Your task to perform on an android device: turn off priority inbox in the gmail app Image 0: 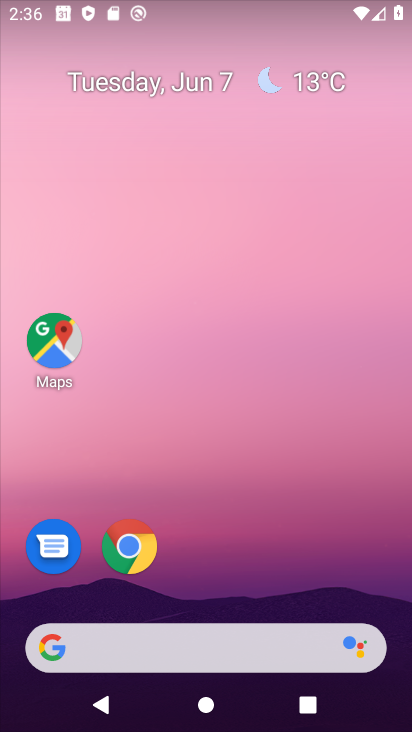
Step 0: drag from (230, 405) to (183, 24)
Your task to perform on an android device: turn off priority inbox in the gmail app Image 1: 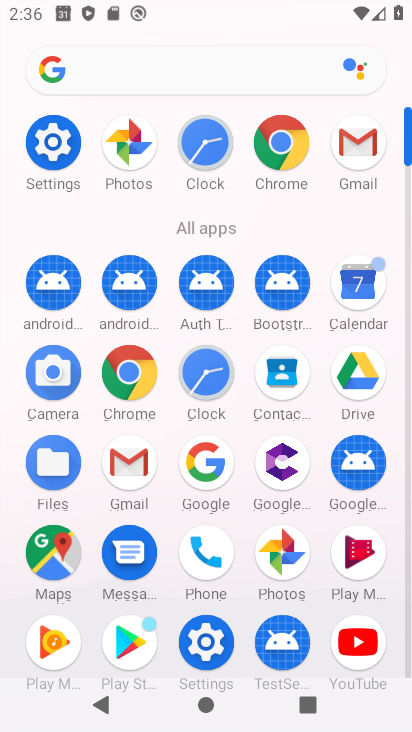
Step 1: click (348, 155)
Your task to perform on an android device: turn off priority inbox in the gmail app Image 2: 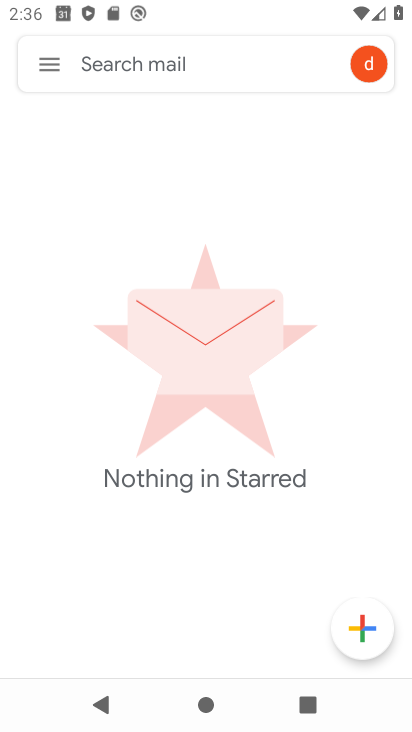
Step 2: click (57, 73)
Your task to perform on an android device: turn off priority inbox in the gmail app Image 3: 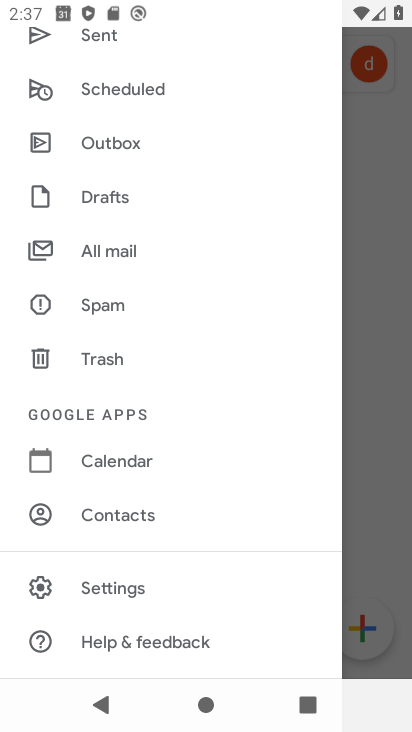
Step 3: click (107, 594)
Your task to perform on an android device: turn off priority inbox in the gmail app Image 4: 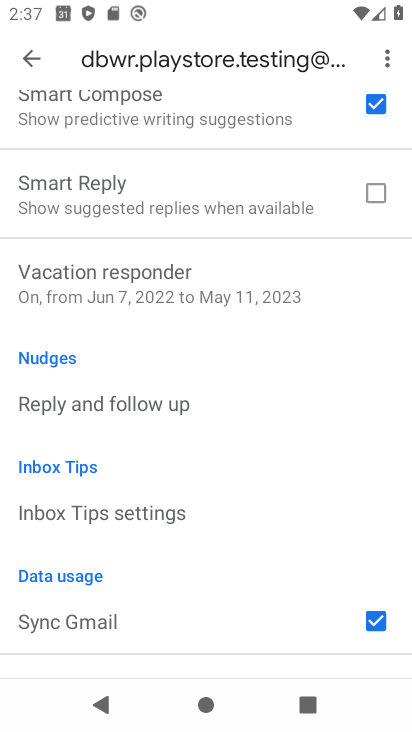
Step 4: drag from (171, 164) to (339, 730)
Your task to perform on an android device: turn off priority inbox in the gmail app Image 5: 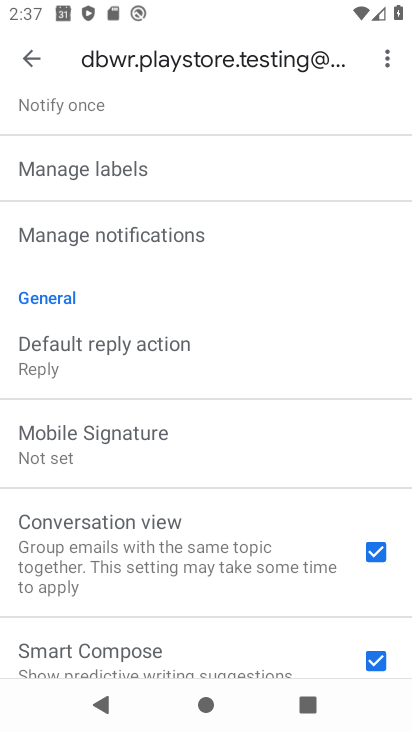
Step 5: drag from (144, 138) to (206, 467)
Your task to perform on an android device: turn off priority inbox in the gmail app Image 6: 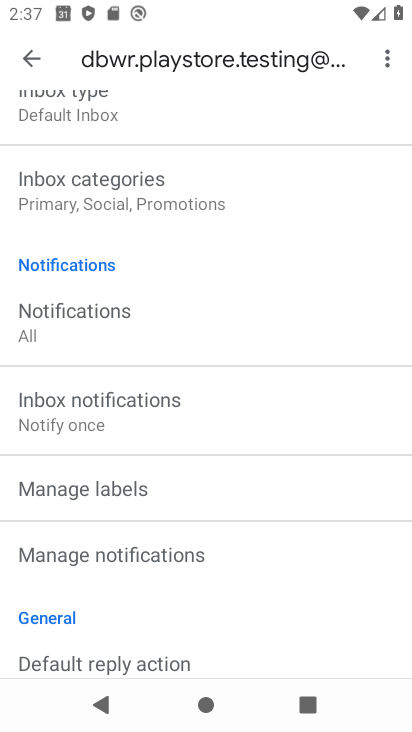
Step 6: drag from (119, 183) to (208, 568)
Your task to perform on an android device: turn off priority inbox in the gmail app Image 7: 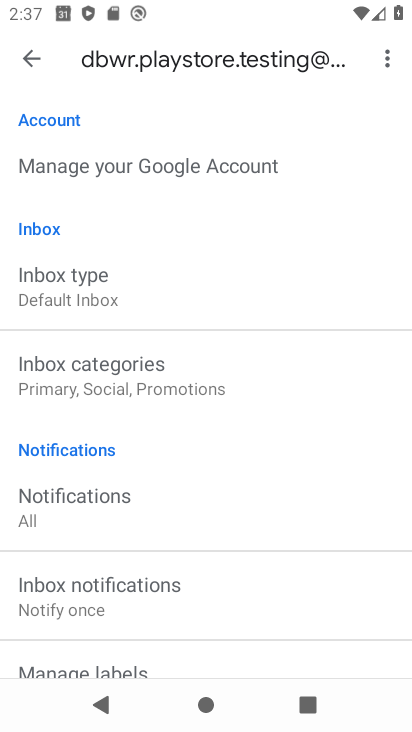
Step 7: click (88, 293)
Your task to perform on an android device: turn off priority inbox in the gmail app Image 8: 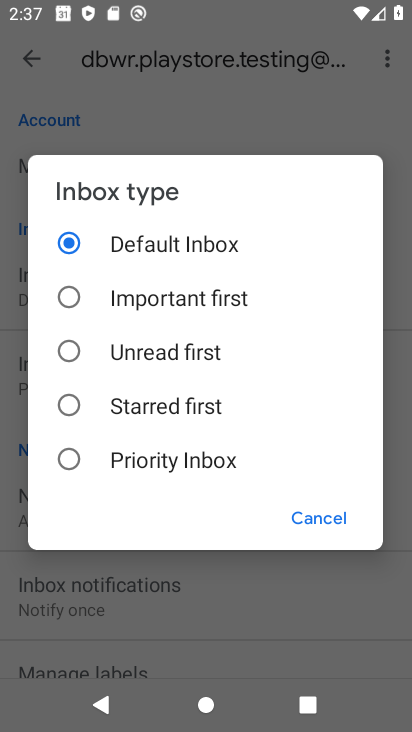
Step 8: click (159, 407)
Your task to perform on an android device: turn off priority inbox in the gmail app Image 9: 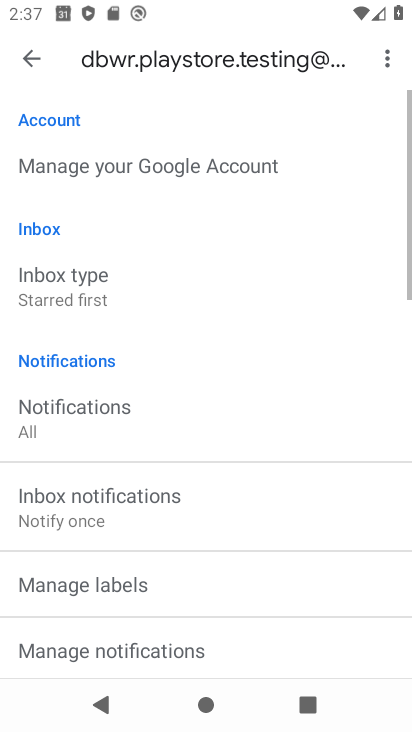
Step 9: task complete